Your task to perform on an android device: turn off priority inbox in the gmail app Image 0: 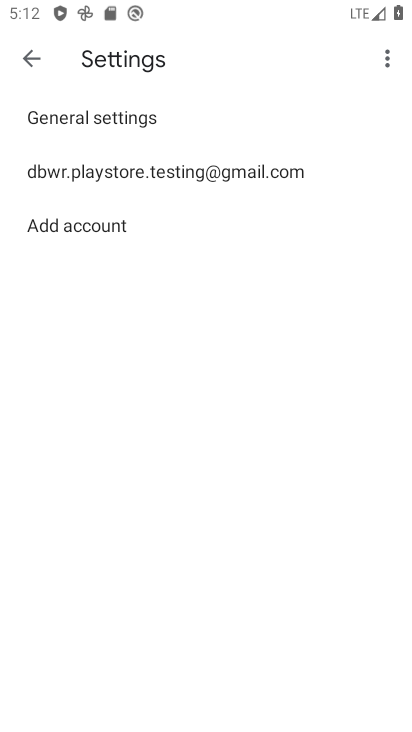
Step 0: press home button
Your task to perform on an android device: turn off priority inbox in the gmail app Image 1: 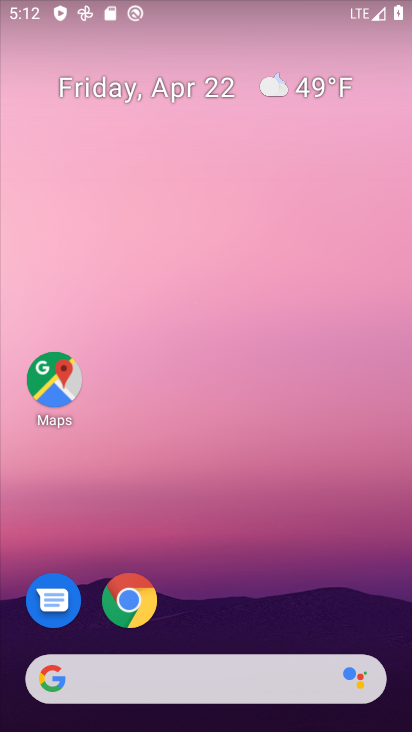
Step 1: drag from (237, 535) to (210, 72)
Your task to perform on an android device: turn off priority inbox in the gmail app Image 2: 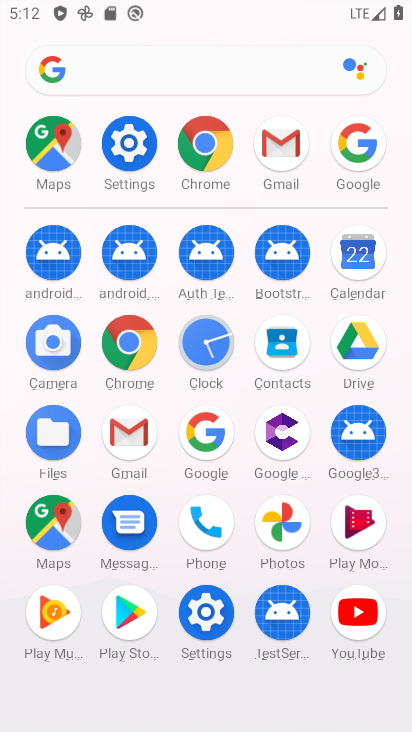
Step 2: click (281, 146)
Your task to perform on an android device: turn off priority inbox in the gmail app Image 3: 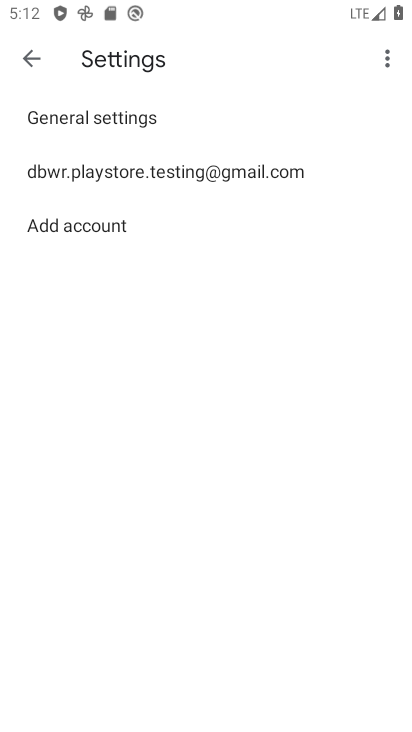
Step 3: click (281, 165)
Your task to perform on an android device: turn off priority inbox in the gmail app Image 4: 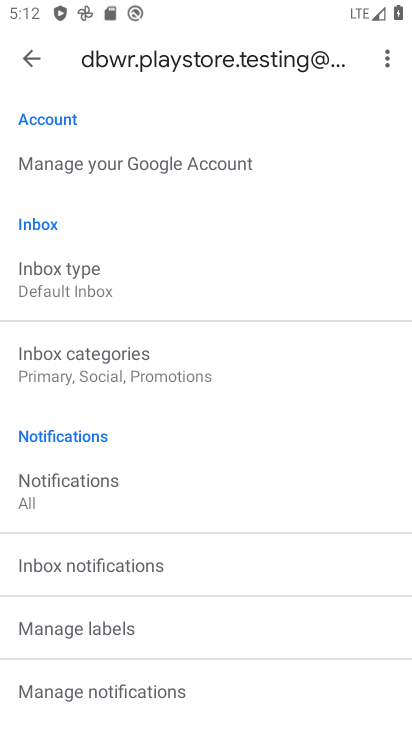
Step 4: drag from (192, 478) to (268, 355)
Your task to perform on an android device: turn off priority inbox in the gmail app Image 5: 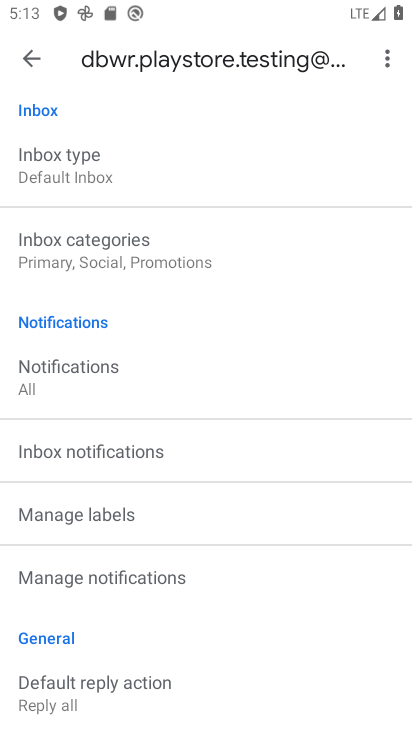
Step 5: click (59, 184)
Your task to perform on an android device: turn off priority inbox in the gmail app Image 6: 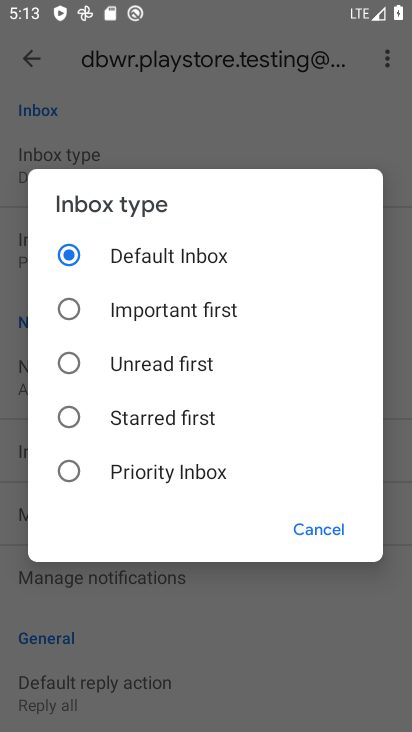
Step 6: click (164, 251)
Your task to perform on an android device: turn off priority inbox in the gmail app Image 7: 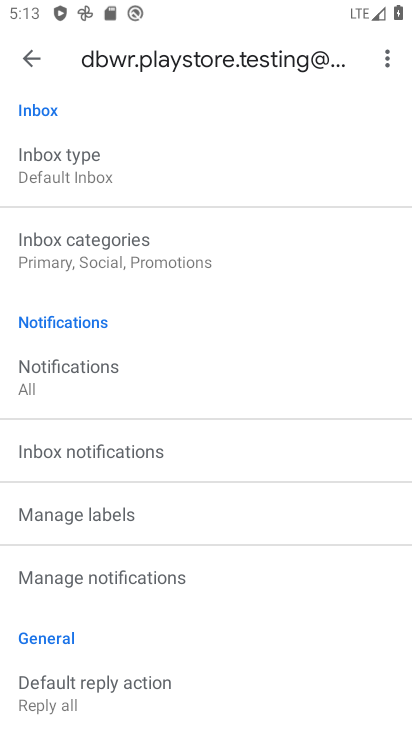
Step 7: task complete